Your task to perform on an android device: Open ESPN.com Image 0: 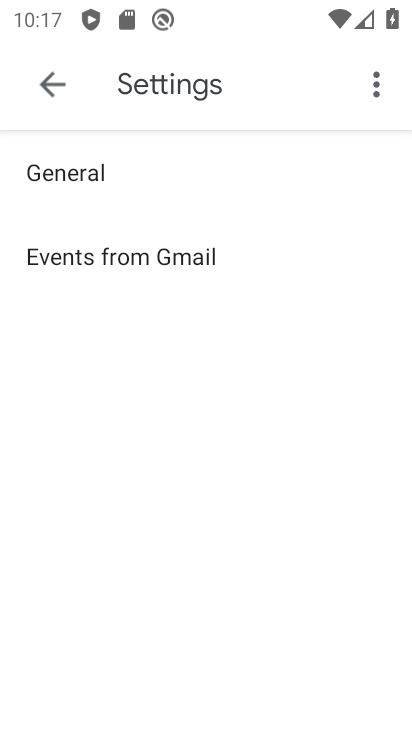
Step 0: press home button
Your task to perform on an android device: Open ESPN.com Image 1: 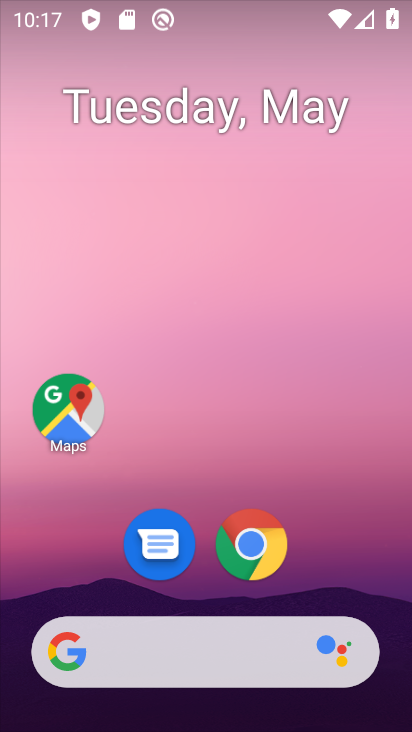
Step 1: click (251, 554)
Your task to perform on an android device: Open ESPN.com Image 2: 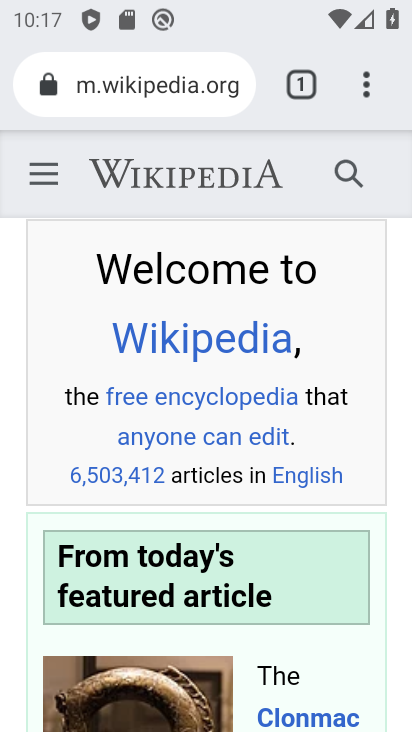
Step 2: click (306, 74)
Your task to perform on an android device: Open ESPN.com Image 3: 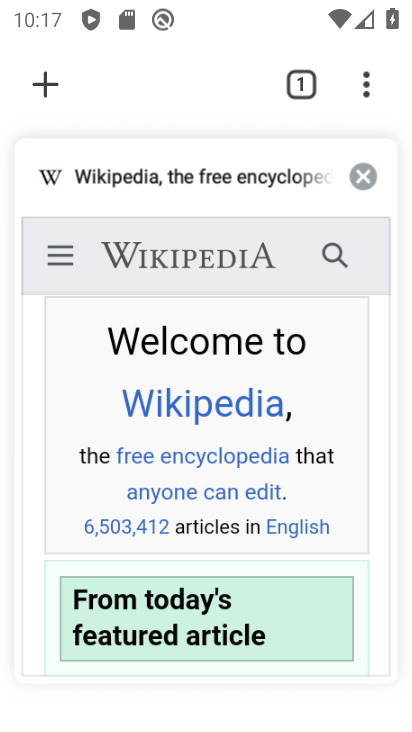
Step 3: click (45, 86)
Your task to perform on an android device: Open ESPN.com Image 4: 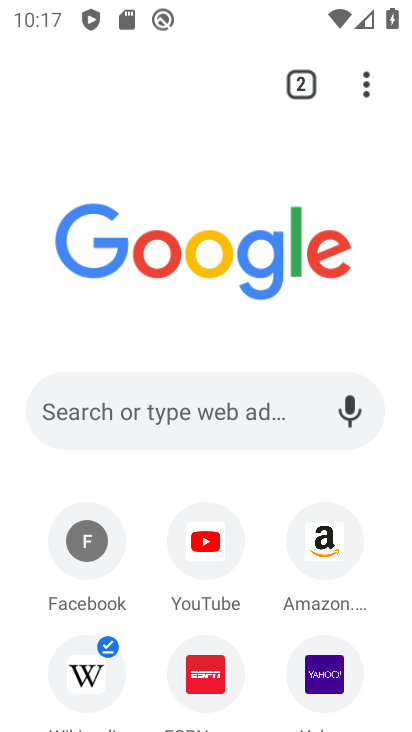
Step 4: click (218, 678)
Your task to perform on an android device: Open ESPN.com Image 5: 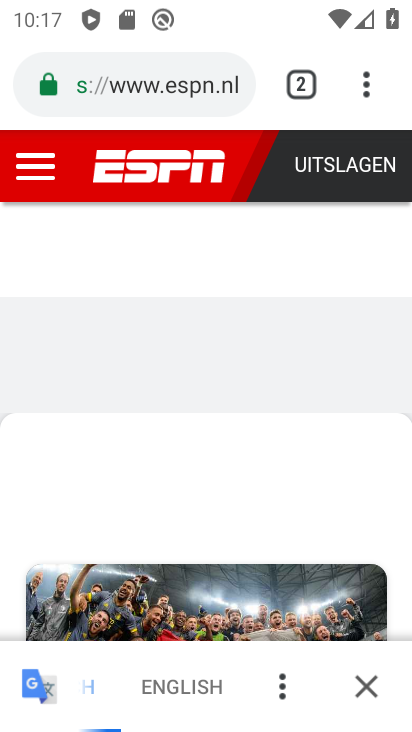
Step 5: task complete